Your task to perform on an android device: Find coffee shops on Maps Image 0: 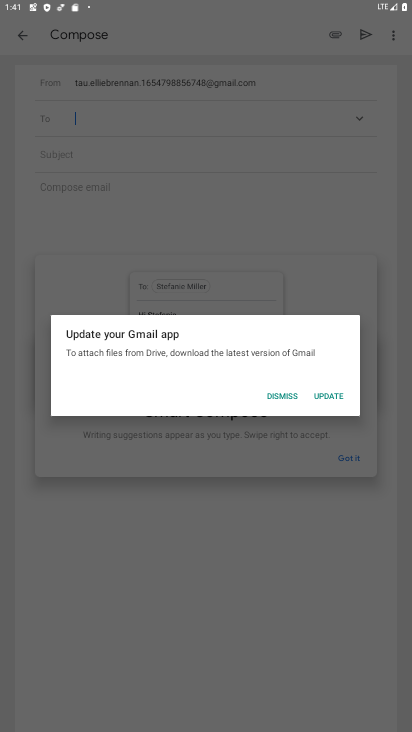
Step 0: press home button
Your task to perform on an android device: Find coffee shops on Maps Image 1: 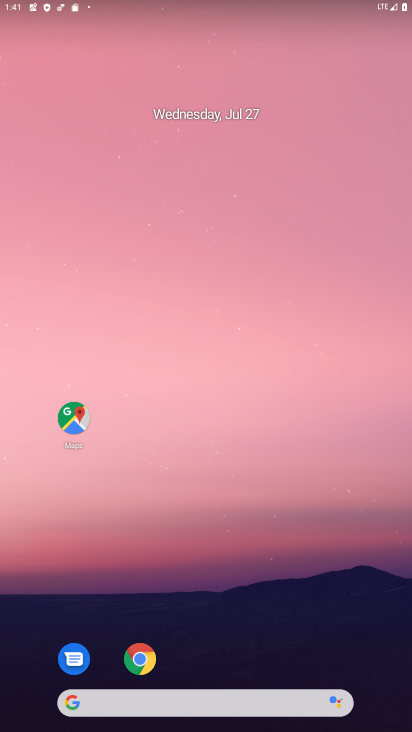
Step 1: drag from (232, 694) to (224, 243)
Your task to perform on an android device: Find coffee shops on Maps Image 2: 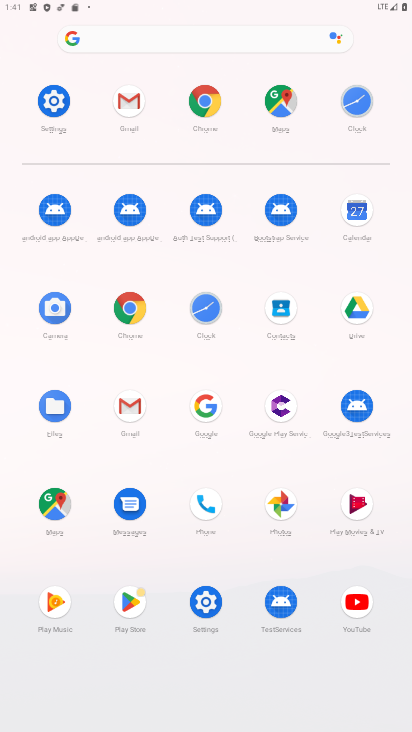
Step 2: click (58, 517)
Your task to perform on an android device: Find coffee shops on Maps Image 3: 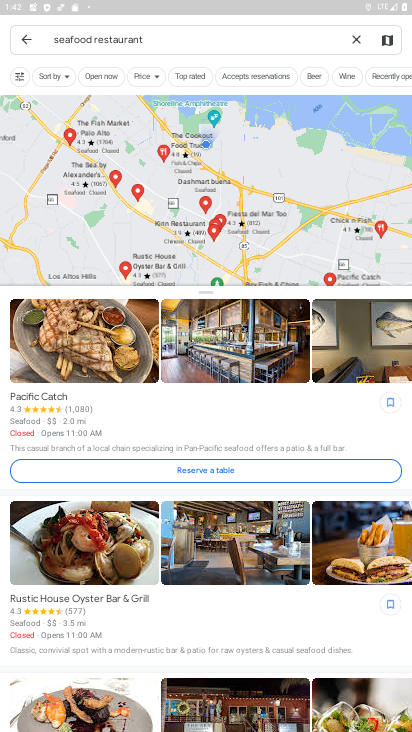
Step 3: click (353, 36)
Your task to perform on an android device: Find coffee shops on Maps Image 4: 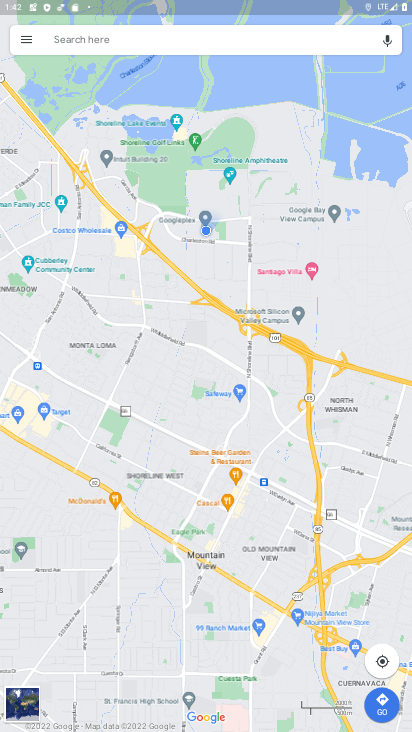
Step 4: click (185, 44)
Your task to perform on an android device: Find coffee shops on Maps Image 5: 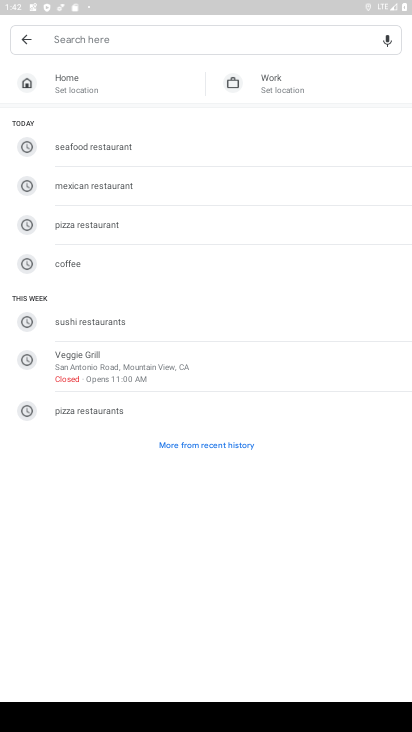
Step 5: type "coffee shops"
Your task to perform on an android device: Find coffee shops on Maps Image 6: 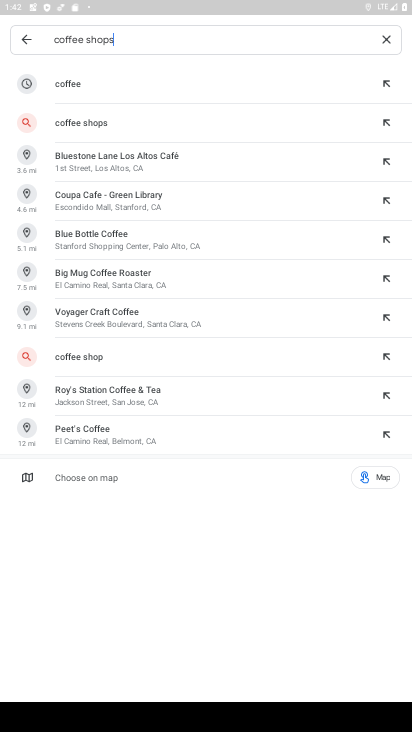
Step 6: click (79, 116)
Your task to perform on an android device: Find coffee shops on Maps Image 7: 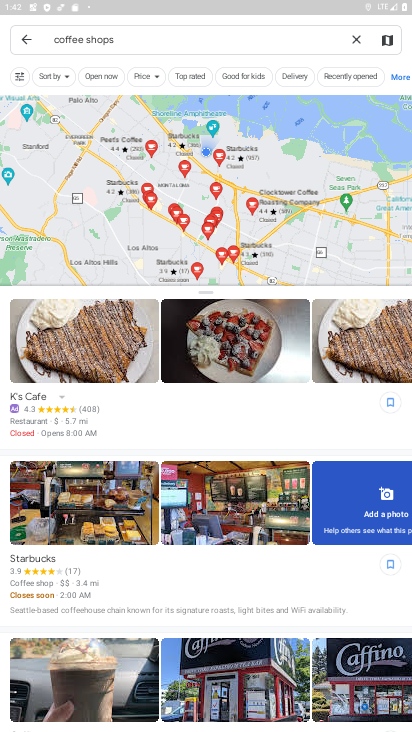
Step 7: task complete